Your task to perform on an android device: clear history in the chrome app Image 0: 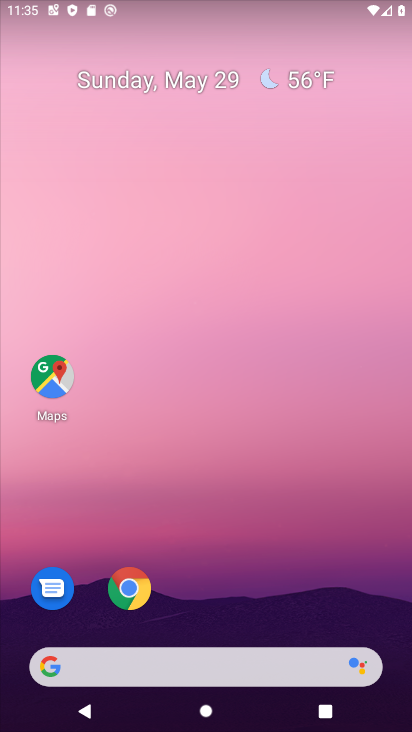
Step 0: drag from (238, 509) to (380, 5)
Your task to perform on an android device: clear history in the chrome app Image 1: 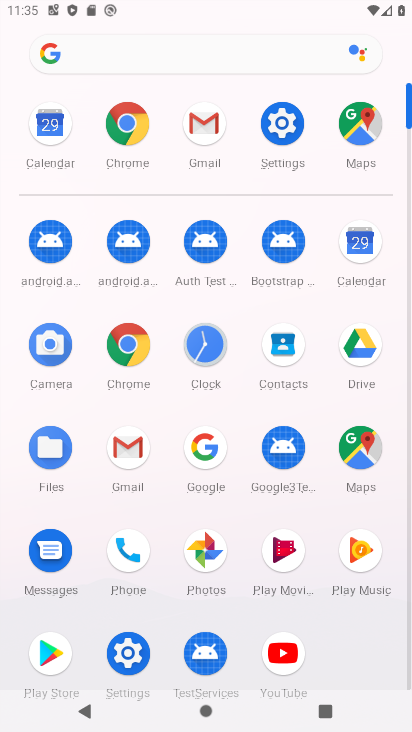
Step 1: click (99, 129)
Your task to perform on an android device: clear history in the chrome app Image 2: 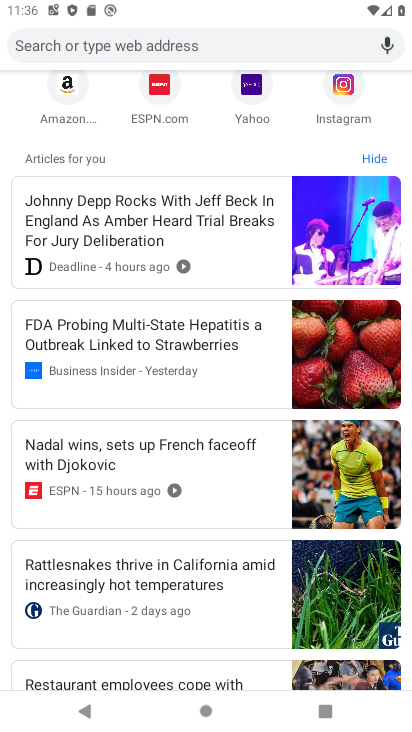
Step 2: drag from (200, 197) to (251, 562)
Your task to perform on an android device: clear history in the chrome app Image 3: 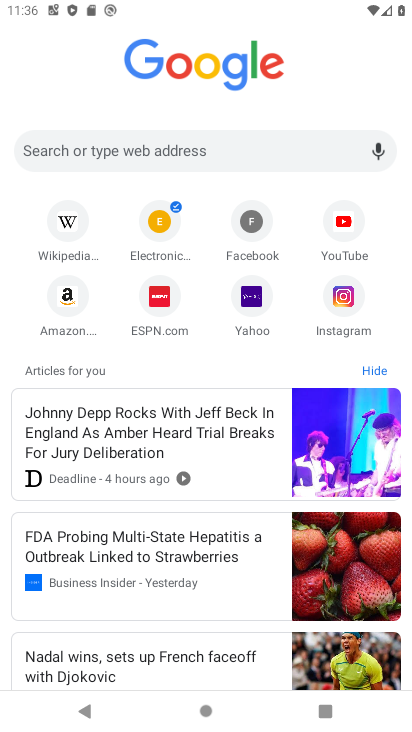
Step 3: drag from (263, 260) to (253, 500)
Your task to perform on an android device: clear history in the chrome app Image 4: 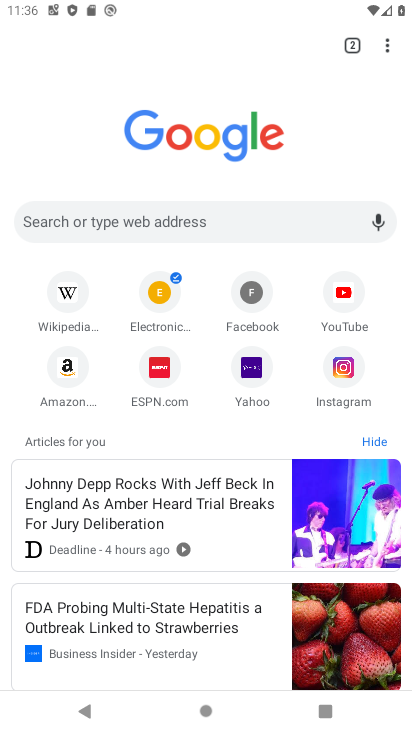
Step 4: drag from (385, 50) to (235, 263)
Your task to perform on an android device: clear history in the chrome app Image 5: 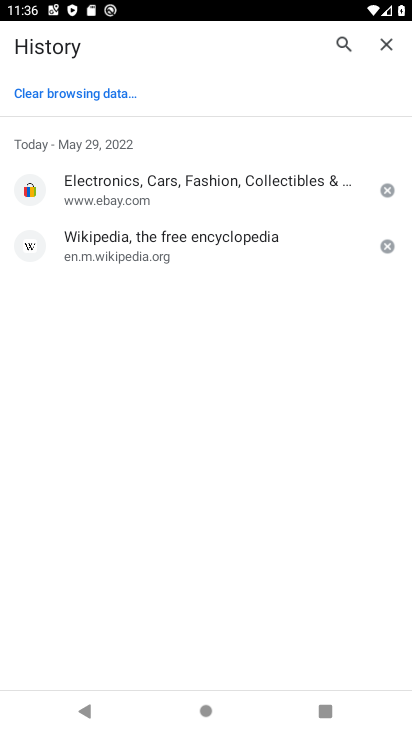
Step 5: click (68, 92)
Your task to perform on an android device: clear history in the chrome app Image 6: 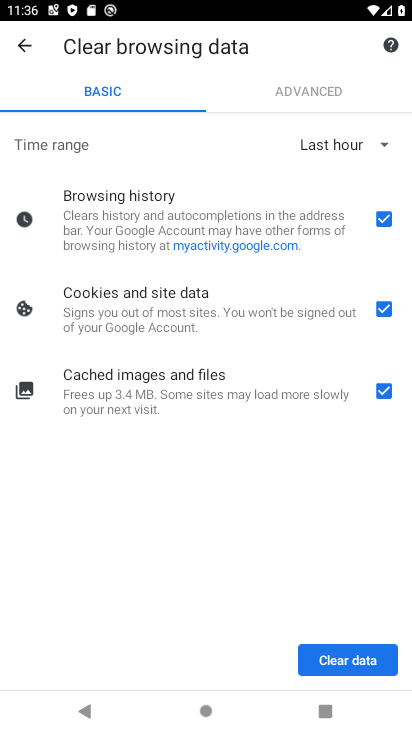
Step 6: click (387, 309)
Your task to perform on an android device: clear history in the chrome app Image 7: 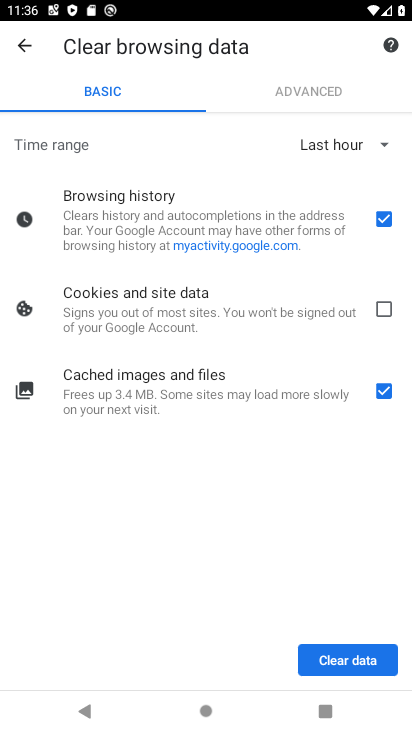
Step 7: click (373, 384)
Your task to perform on an android device: clear history in the chrome app Image 8: 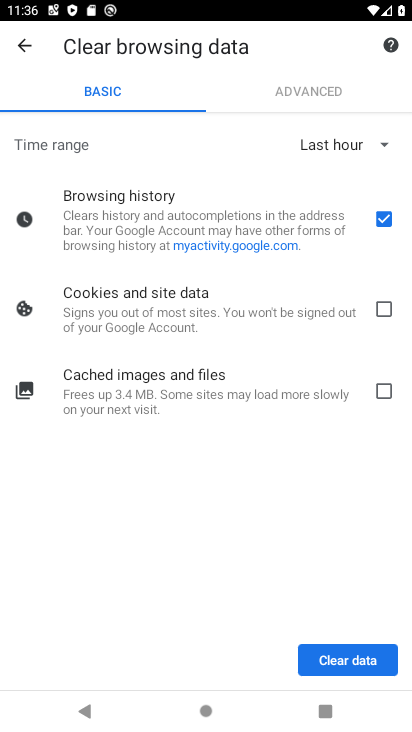
Step 8: click (359, 655)
Your task to perform on an android device: clear history in the chrome app Image 9: 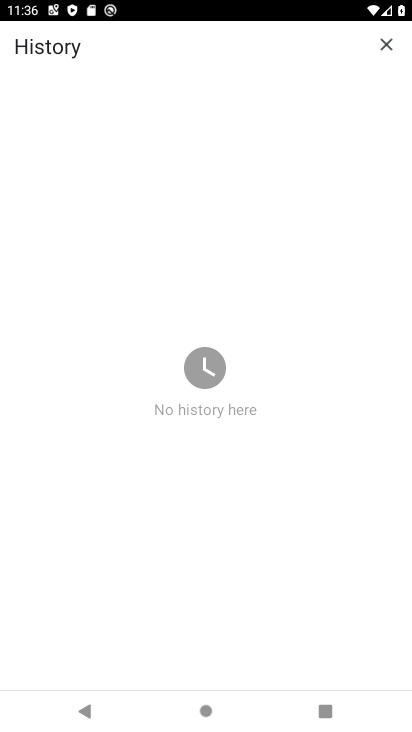
Step 9: task complete